Your task to perform on an android device: Add "bose soundlink" to the cart on bestbuy.com Image 0: 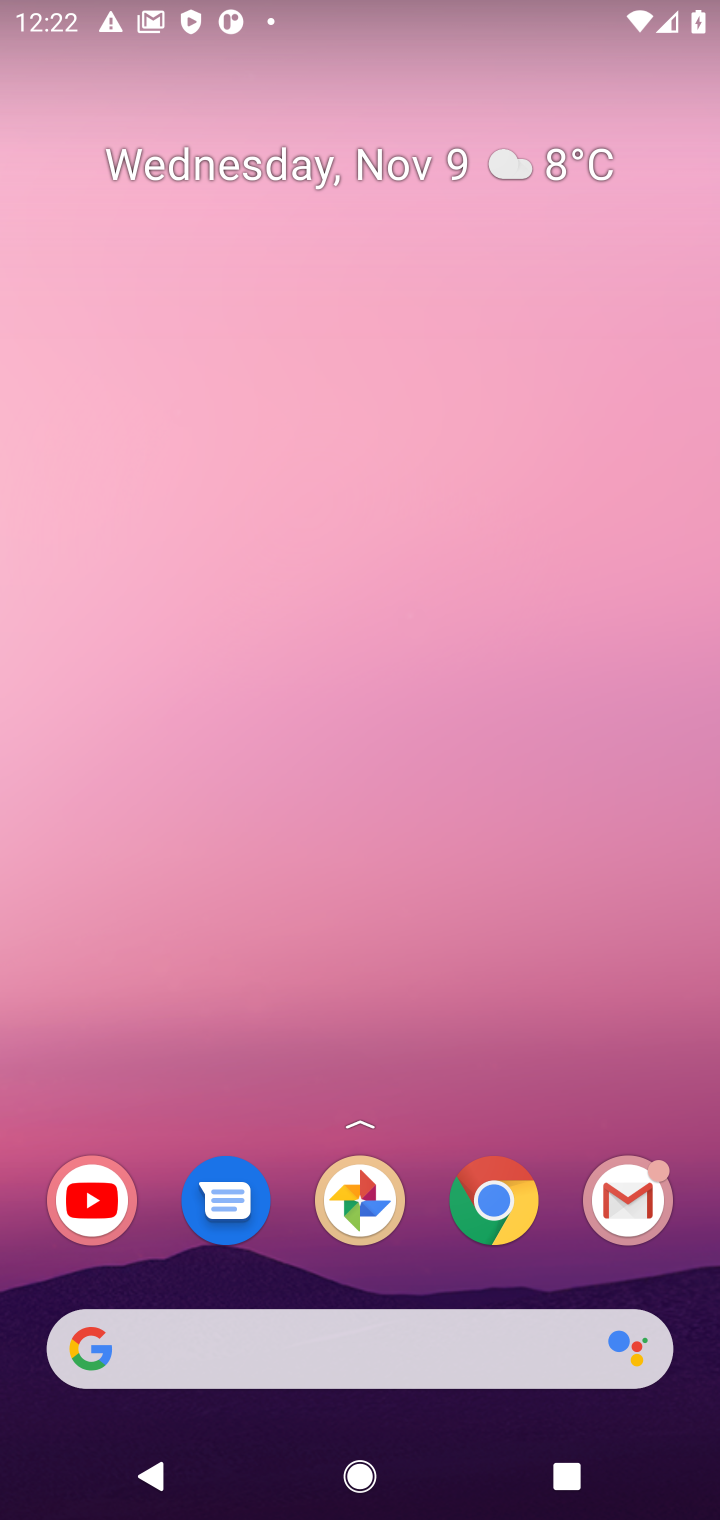
Step 0: click (350, 1360)
Your task to perform on an android device: Add "bose soundlink" to the cart on bestbuy.com Image 1: 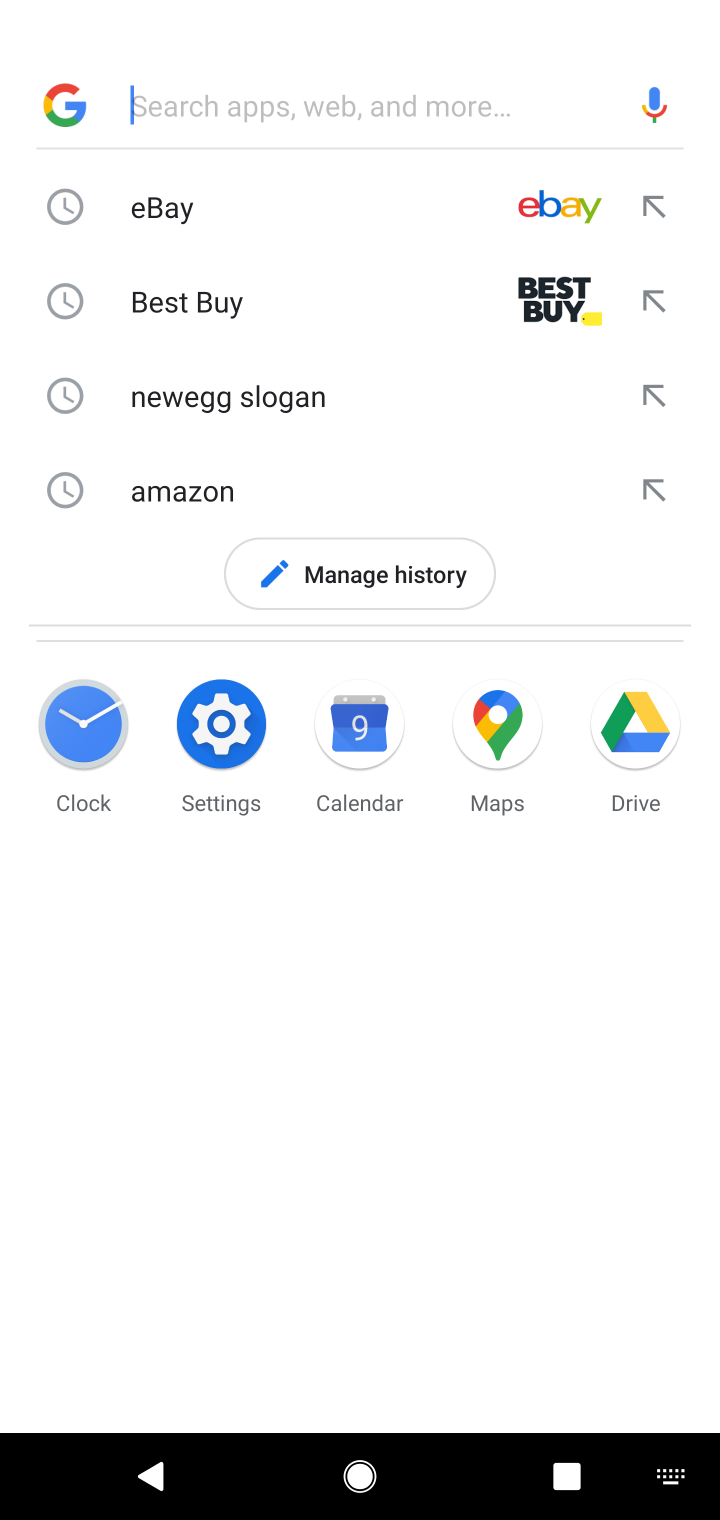
Step 1: type "bestbuy"
Your task to perform on an android device: Add "bose soundlink" to the cart on bestbuy.com Image 2: 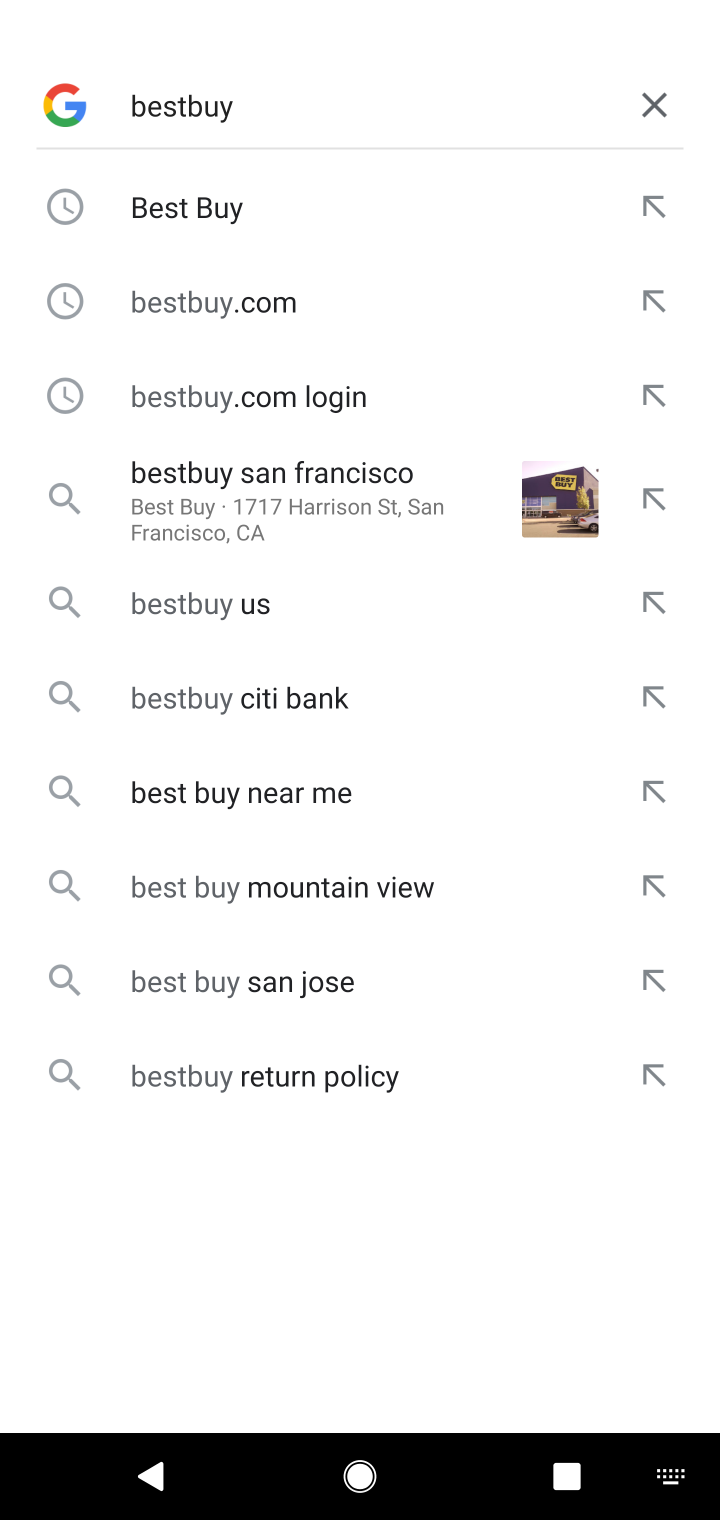
Step 2: click (242, 303)
Your task to perform on an android device: Add "bose soundlink" to the cart on bestbuy.com Image 3: 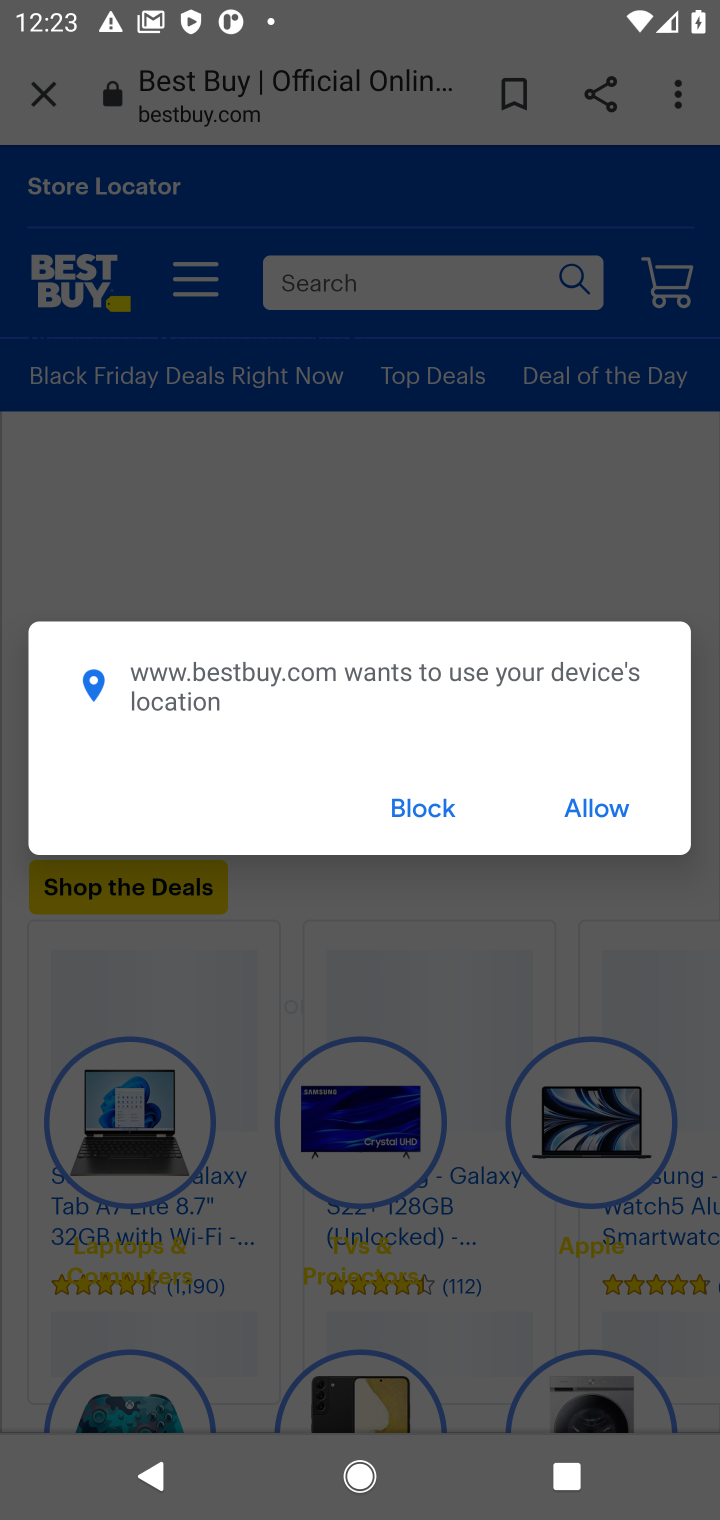
Step 3: click (379, 807)
Your task to perform on an android device: Add "bose soundlink" to the cart on bestbuy.com Image 4: 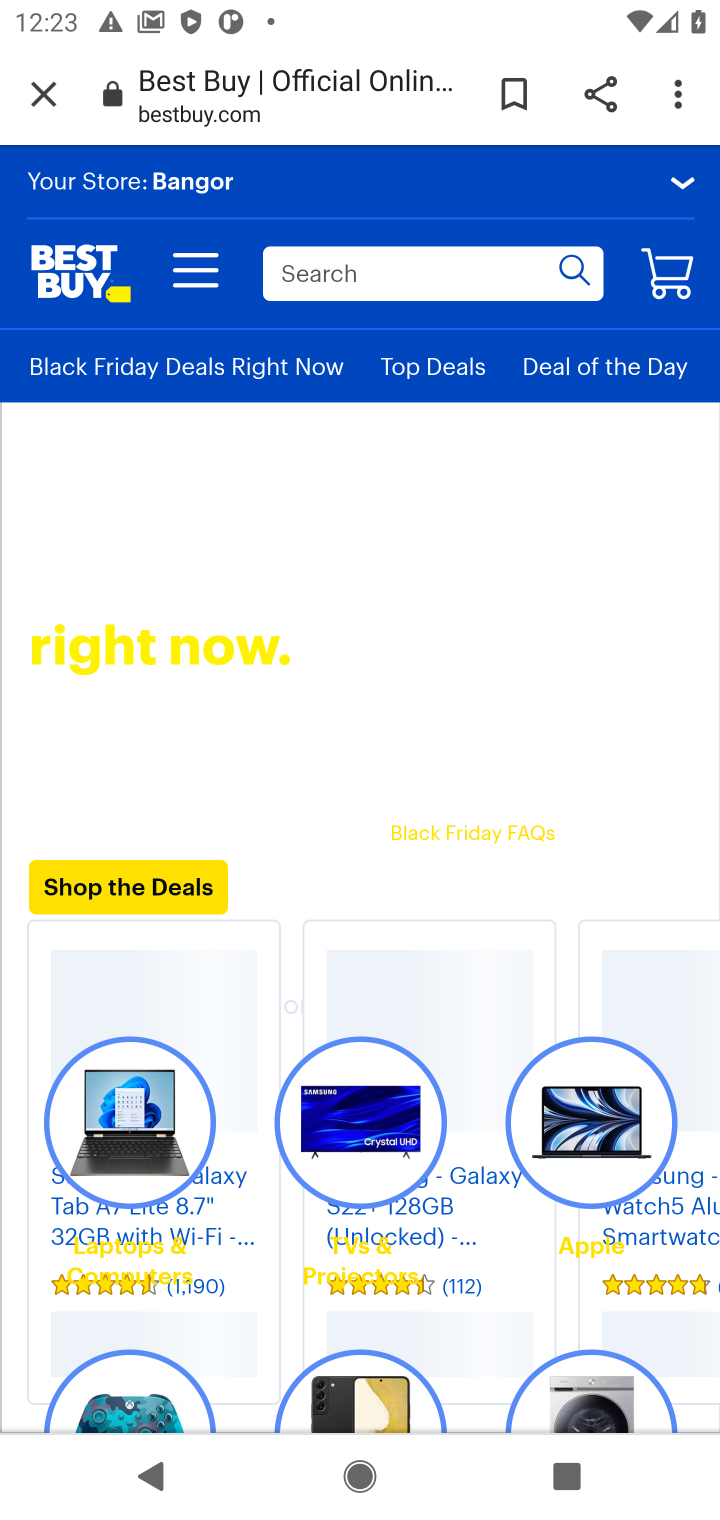
Step 4: task complete